Your task to perform on an android device: Check my email Image 0: 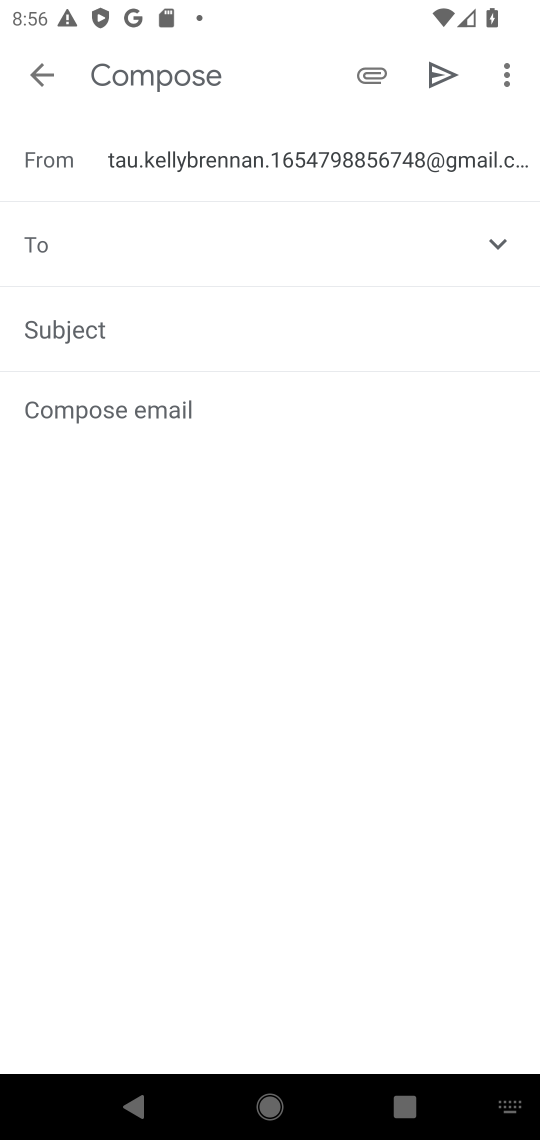
Step 0: press home button
Your task to perform on an android device: Check my email Image 1: 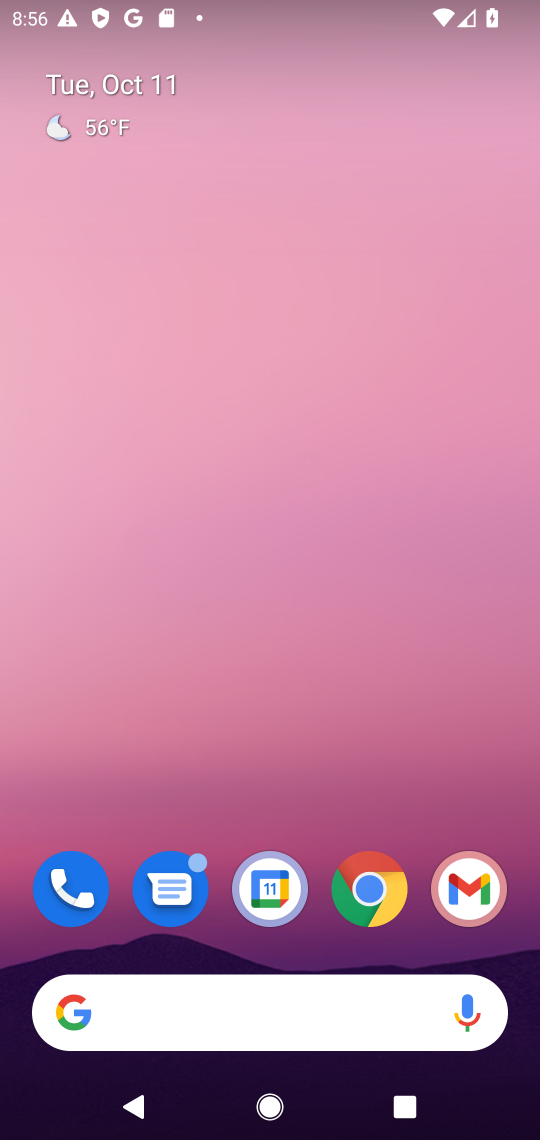
Step 1: click (475, 883)
Your task to perform on an android device: Check my email Image 2: 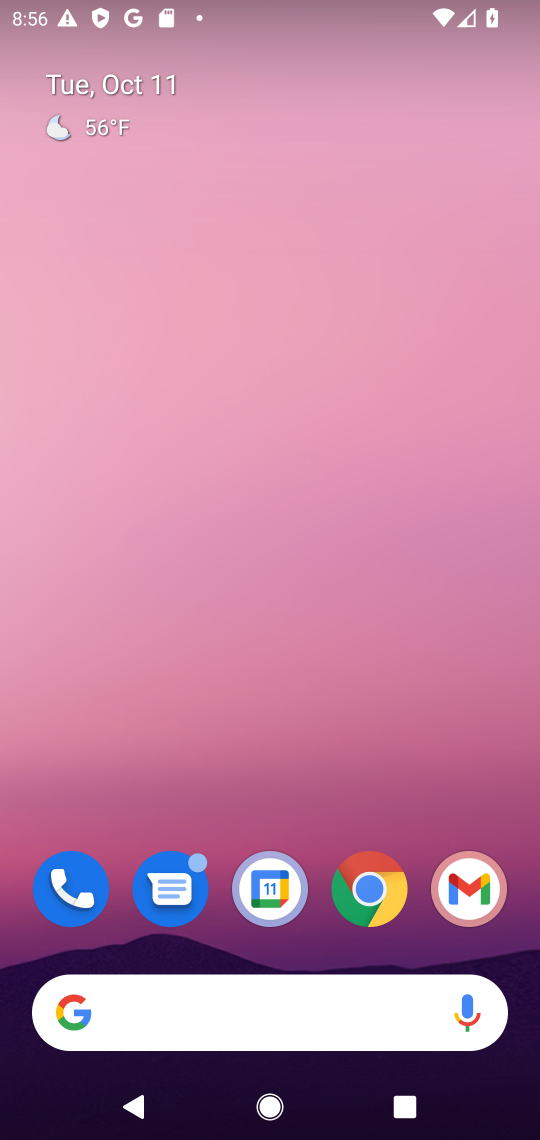
Step 2: click (475, 906)
Your task to perform on an android device: Check my email Image 3: 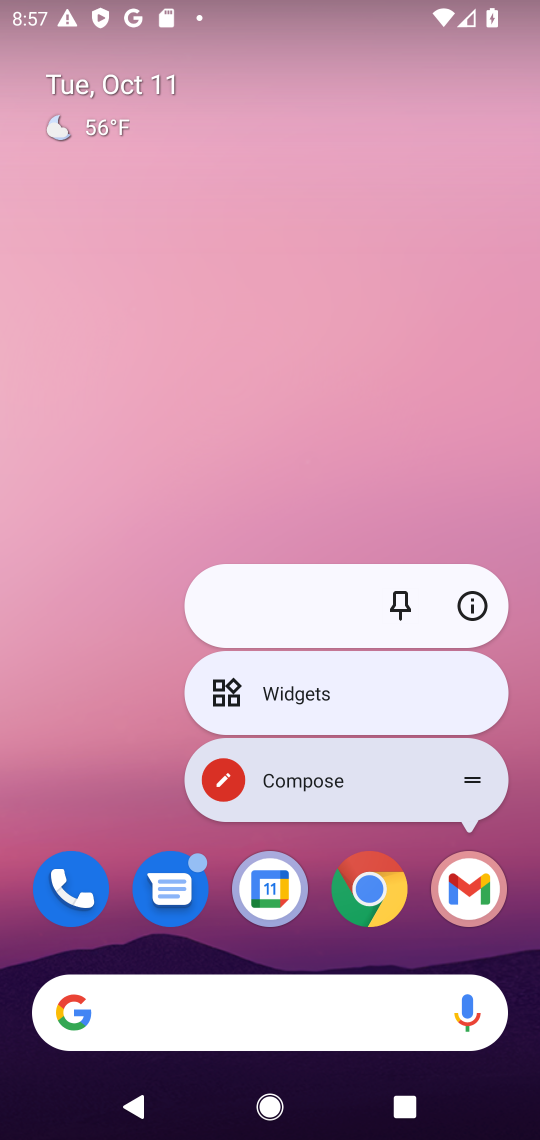
Step 3: click (478, 887)
Your task to perform on an android device: Check my email Image 4: 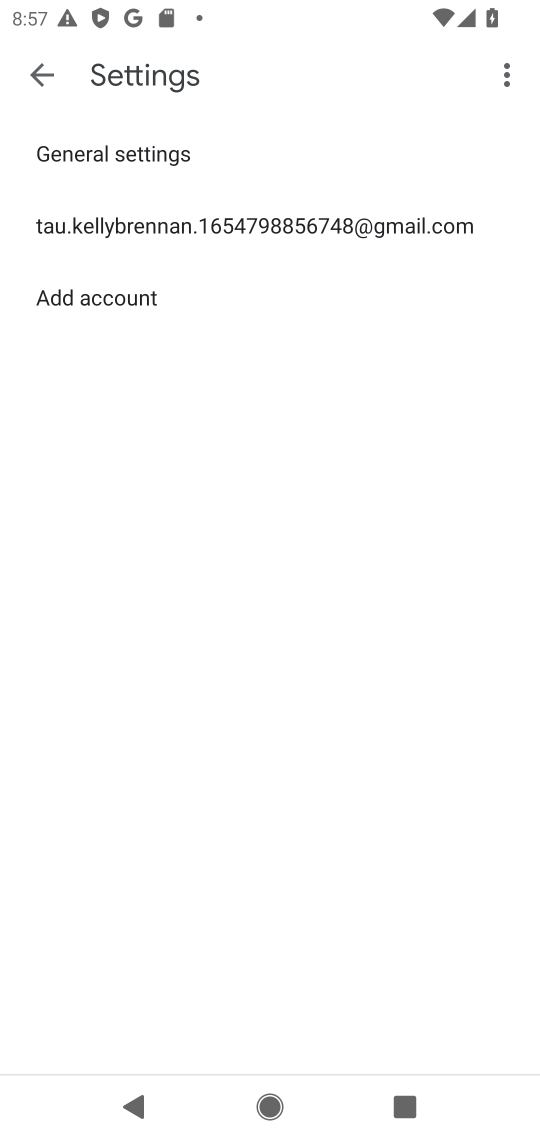
Step 4: click (49, 83)
Your task to perform on an android device: Check my email Image 5: 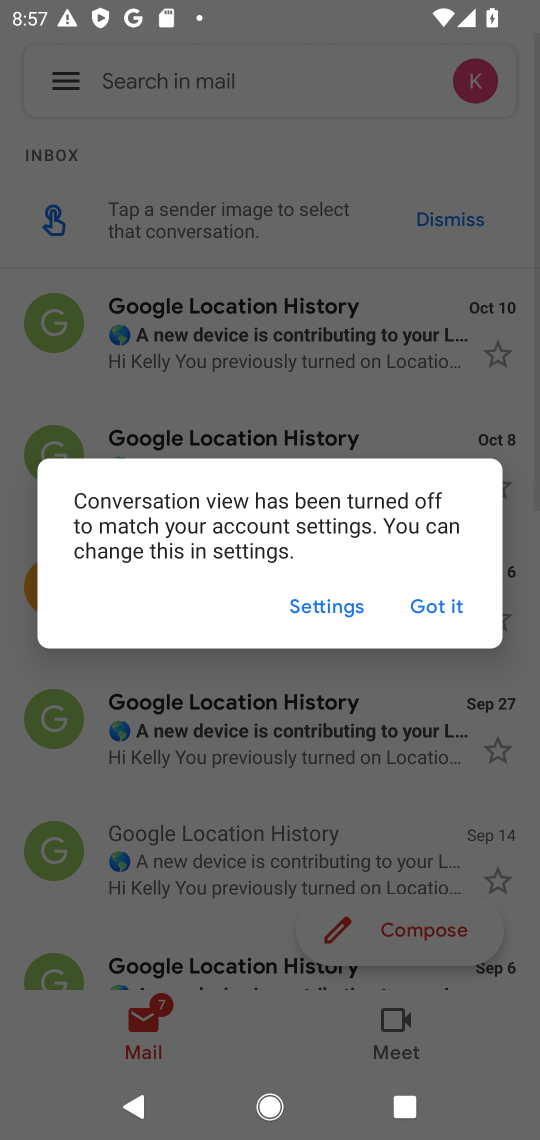
Step 5: click (456, 622)
Your task to perform on an android device: Check my email Image 6: 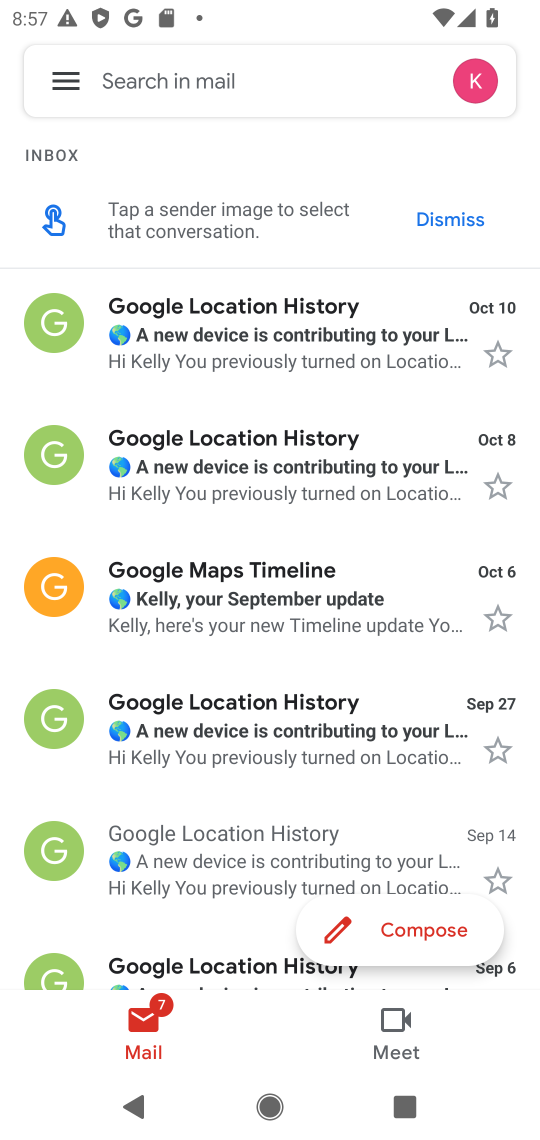
Step 6: task complete